Your task to perform on an android device: open device folders in google photos Image 0: 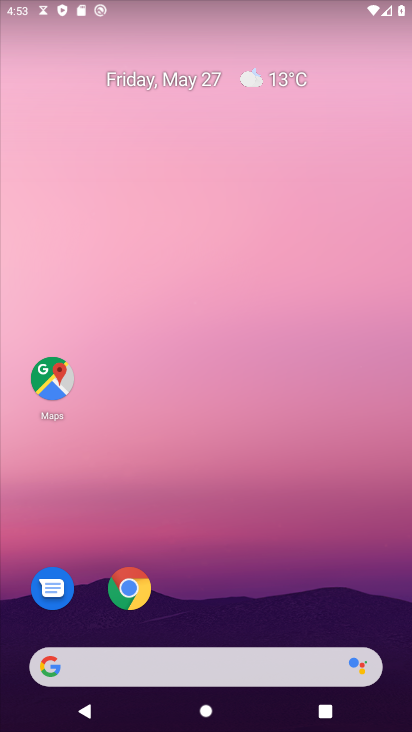
Step 0: drag from (181, 562) to (294, 24)
Your task to perform on an android device: open device folders in google photos Image 1: 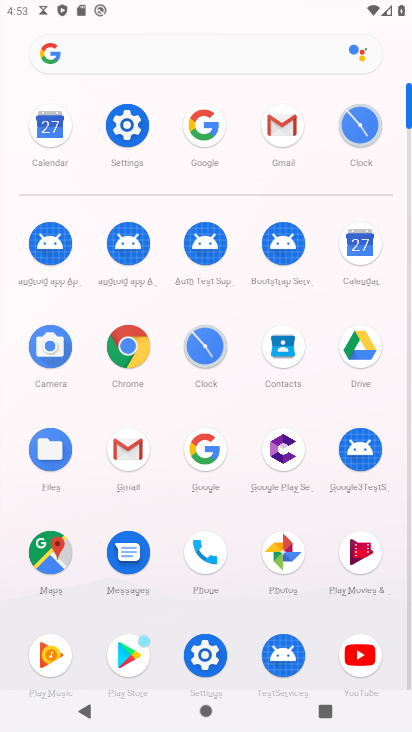
Step 1: click (289, 545)
Your task to perform on an android device: open device folders in google photos Image 2: 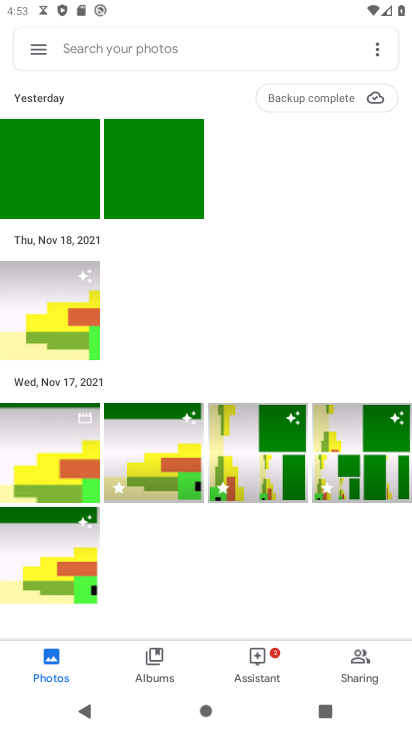
Step 2: click (33, 49)
Your task to perform on an android device: open device folders in google photos Image 3: 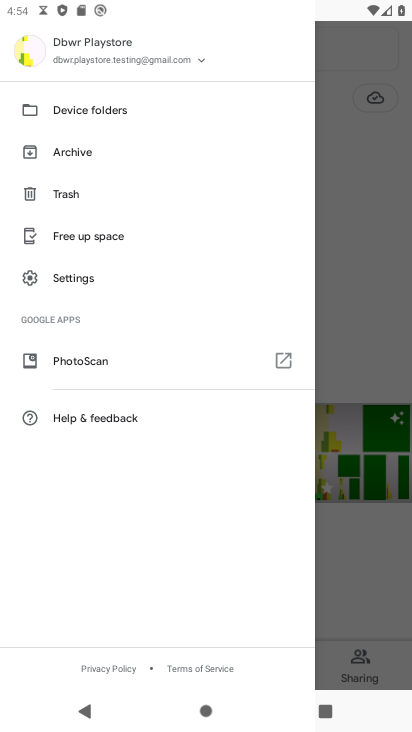
Step 3: click (91, 107)
Your task to perform on an android device: open device folders in google photos Image 4: 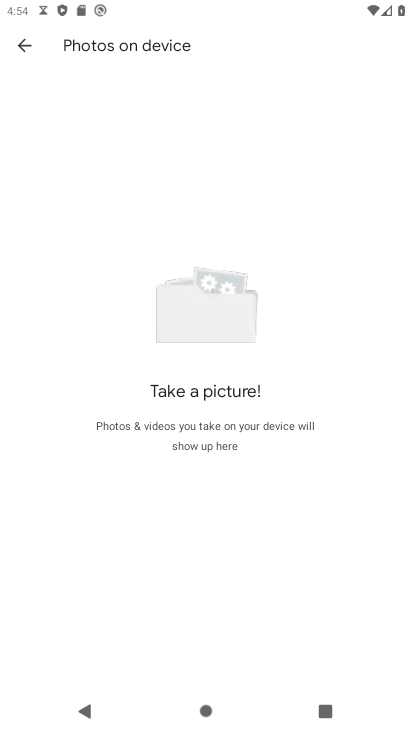
Step 4: press back button
Your task to perform on an android device: open device folders in google photos Image 5: 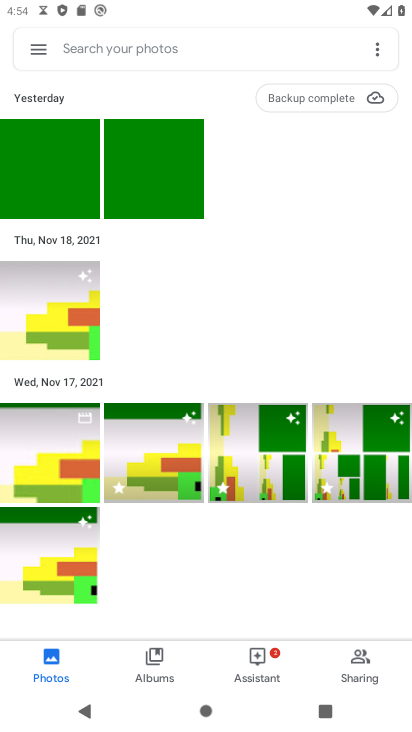
Step 5: click (33, 47)
Your task to perform on an android device: open device folders in google photos Image 6: 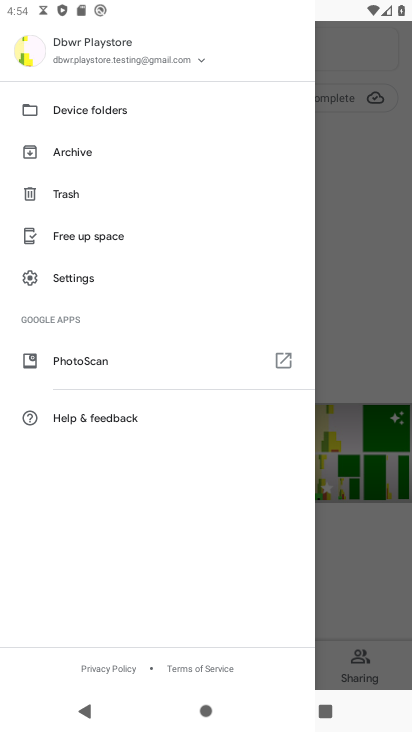
Step 6: click (92, 101)
Your task to perform on an android device: open device folders in google photos Image 7: 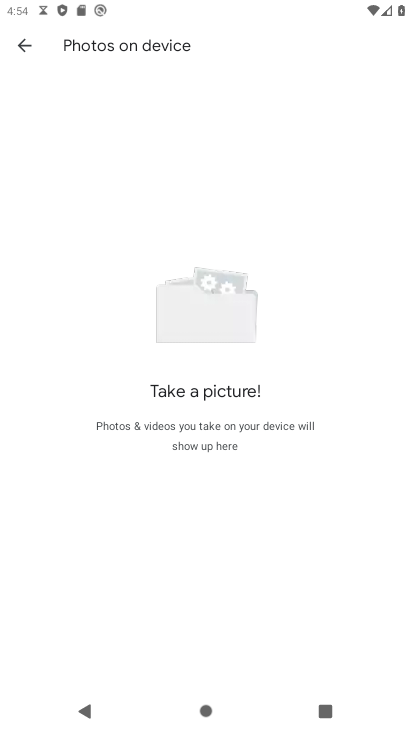
Step 7: task complete